Your task to perform on an android device: turn off priority inbox in the gmail app Image 0: 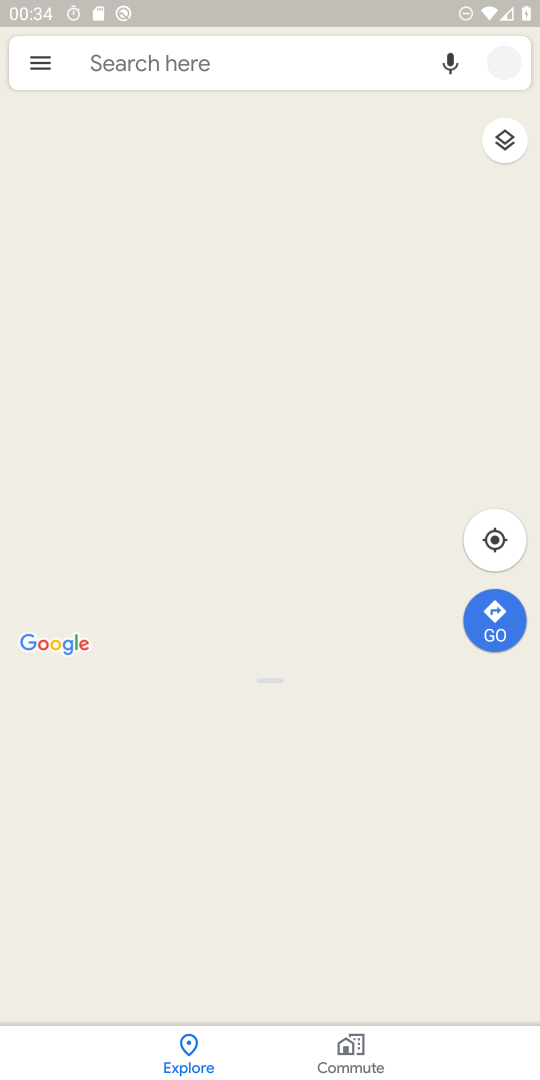
Step 0: press home button
Your task to perform on an android device: turn off priority inbox in the gmail app Image 1: 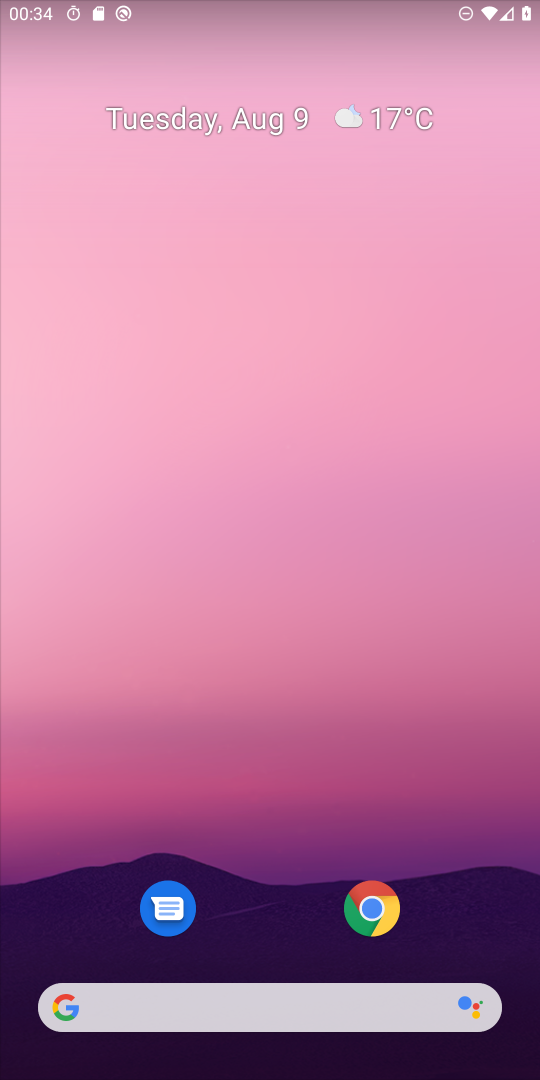
Step 1: drag from (273, 961) to (264, 126)
Your task to perform on an android device: turn off priority inbox in the gmail app Image 2: 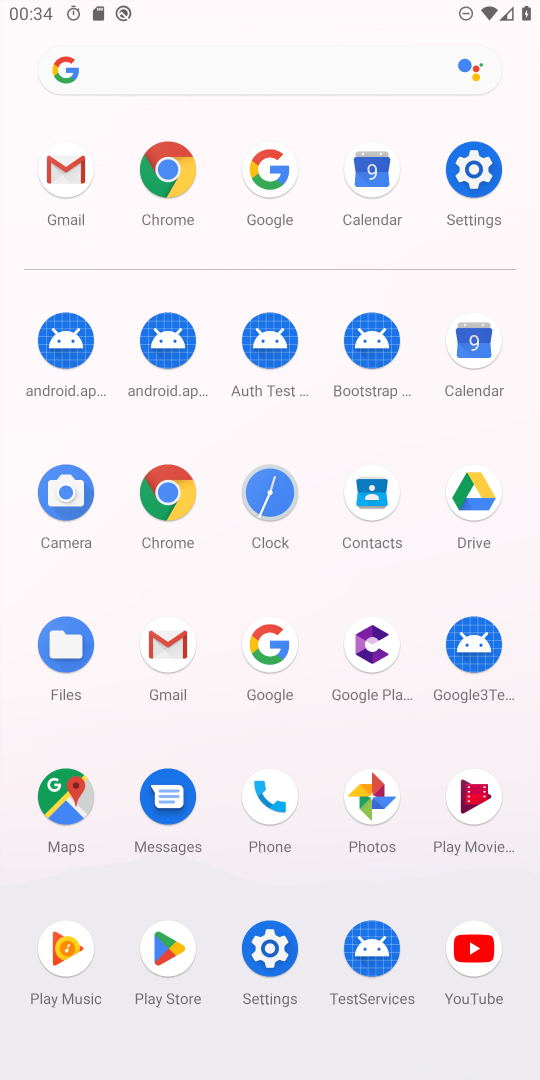
Step 2: click (71, 218)
Your task to perform on an android device: turn off priority inbox in the gmail app Image 3: 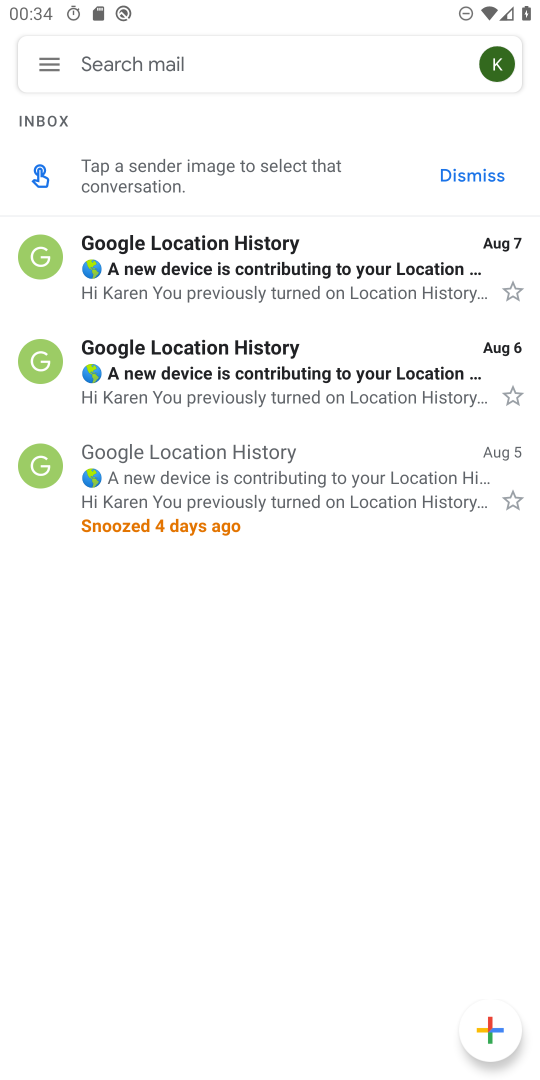
Step 3: click (46, 72)
Your task to perform on an android device: turn off priority inbox in the gmail app Image 4: 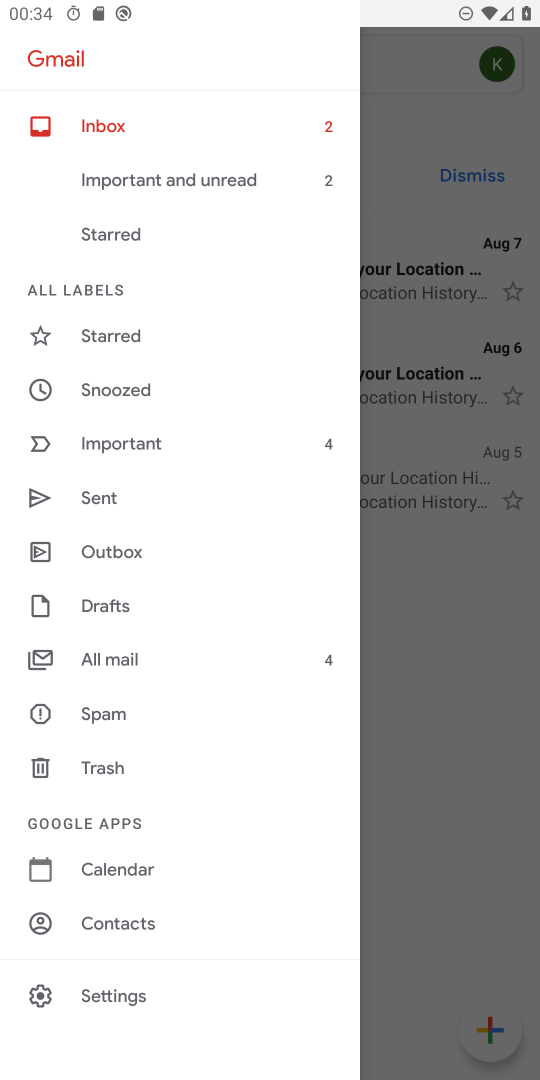
Step 4: click (163, 1017)
Your task to perform on an android device: turn off priority inbox in the gmail app Image 5: 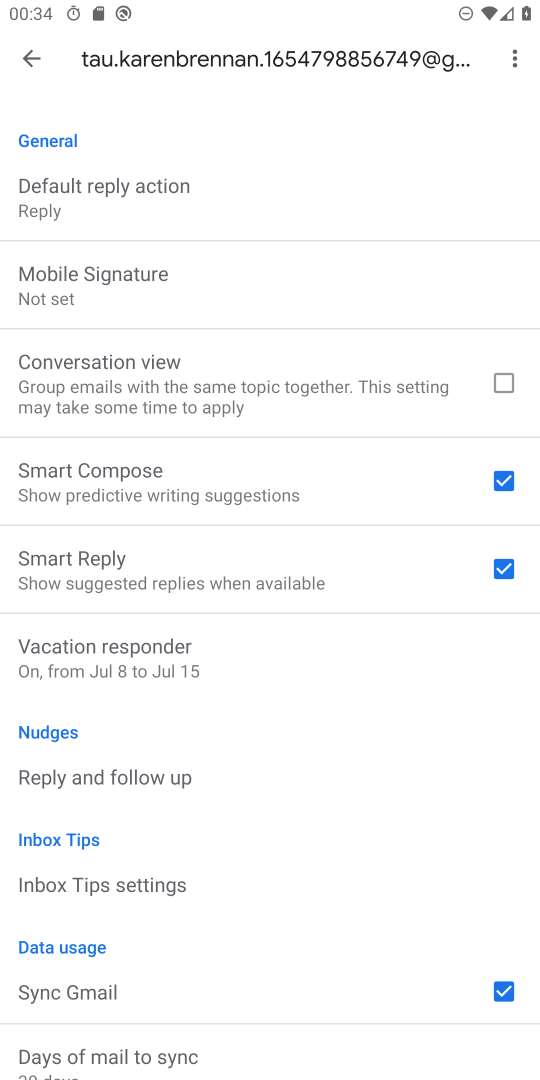
Step 5: click (315, 1009)
Your task to perform on an android device: turn off priority inbox in the gmail app Image 6: 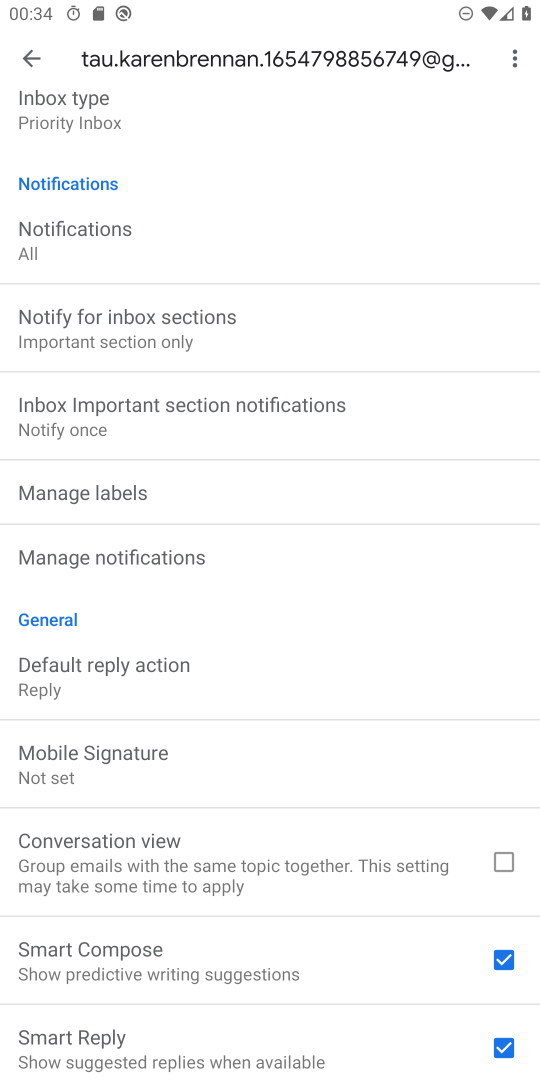
Step 6: click (206, 126)
Your task to perform on an android device: turn off priority inbox in the gmail app Image 7: 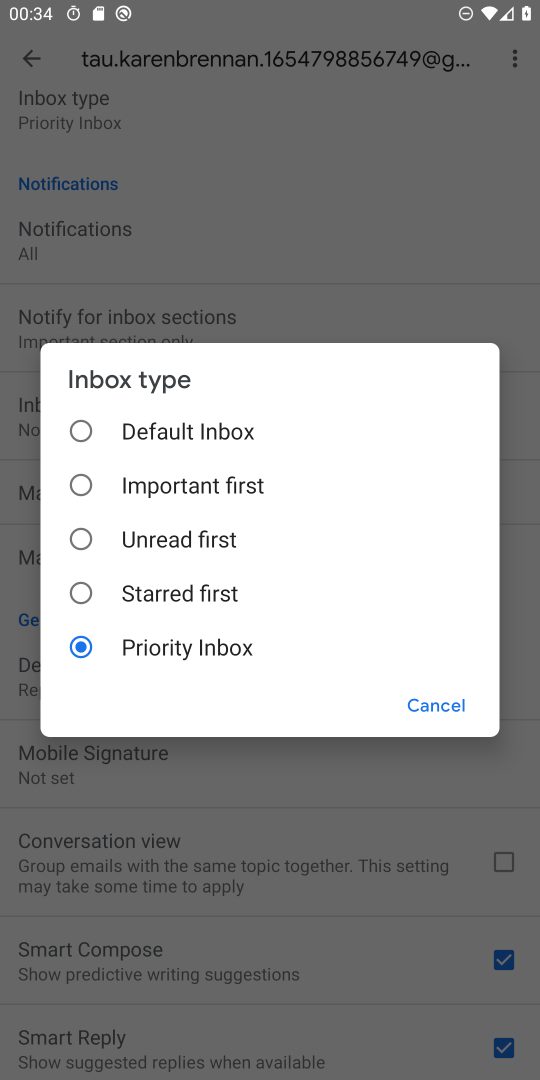
Step 7: click (219, 447)
Your task to perform on an android device: turn off priority inbox in the gmail app Image 8: 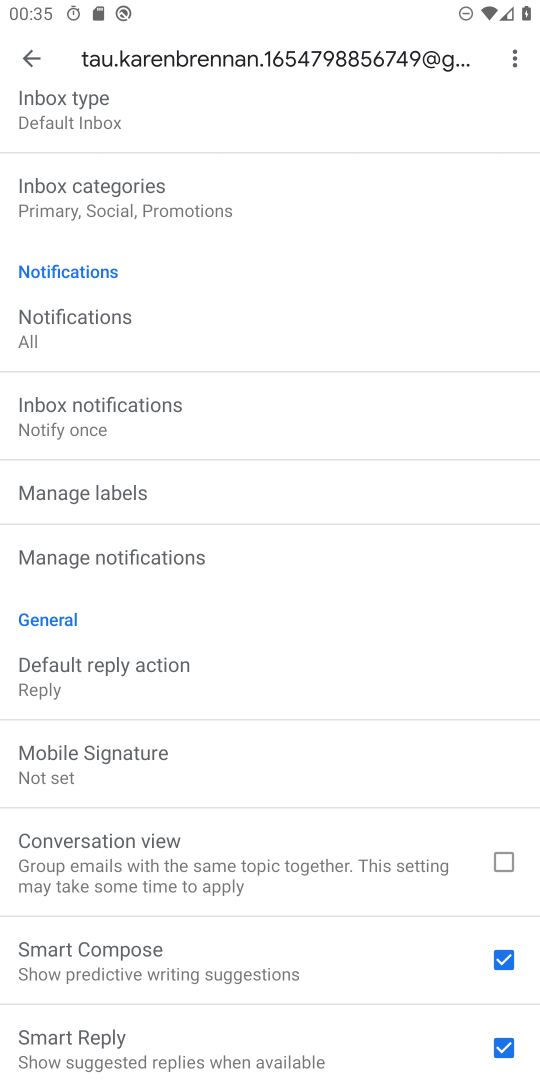
Step 8: task complete